Your task to perform on an android device: empty trash in the gmail app Image 0: 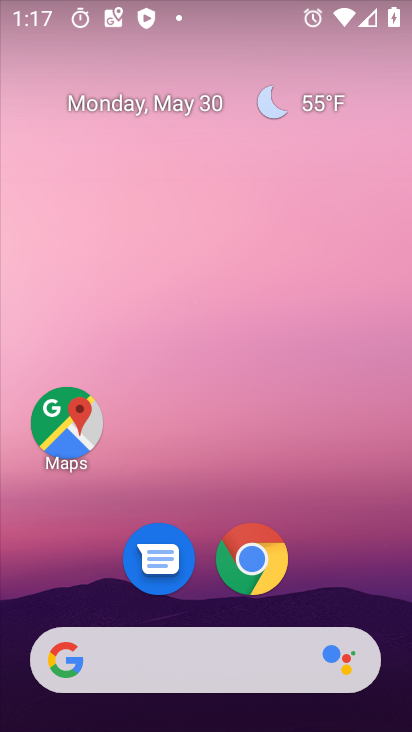
Step 0: drag from (122, 590) to (161, 111)
Your task to perform on an android device: empty trash in the gmail app Image 1: 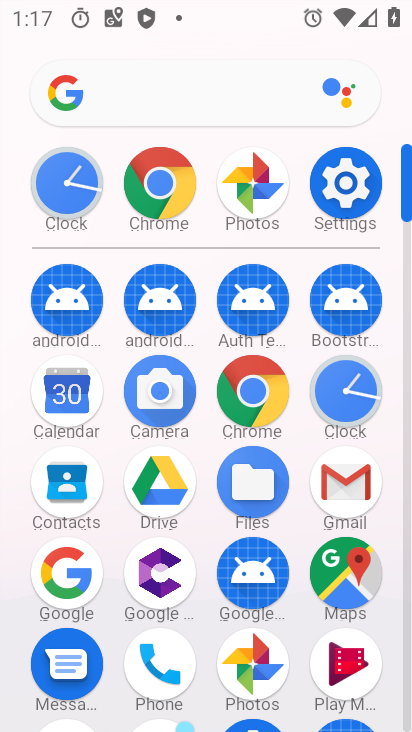
Step 1: click (342, 477)
Your task to perform on an android device: empty trash in the gmail app Image 2: 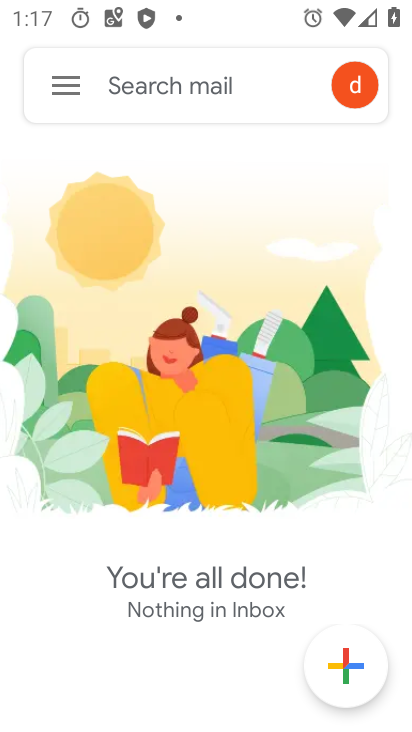
Step 2: click (64, 82)
Your task to perform on an android device: empty trash in the gmail app Image 3: 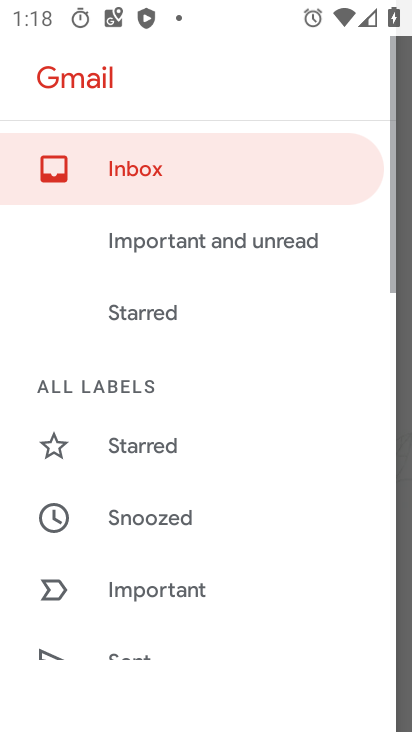
Step 3: drag from (149, 604) to (198, 148)
Your task to perform on an android device: empty trash in the gmail app Image 4: 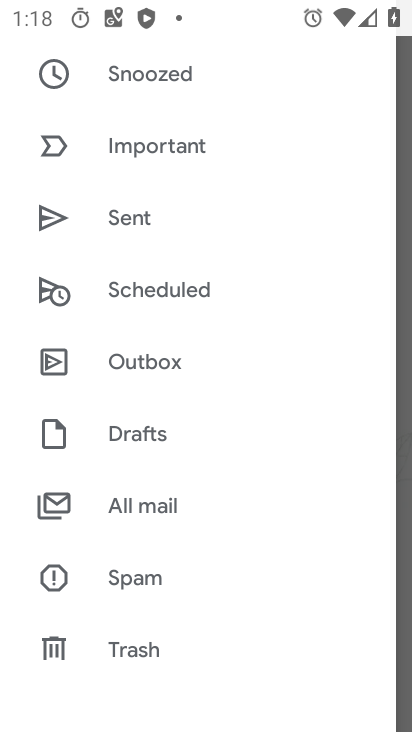
Step 4: click (139, 643)
Your task to perform on an android device: empty trash in the gmail app Image 5: 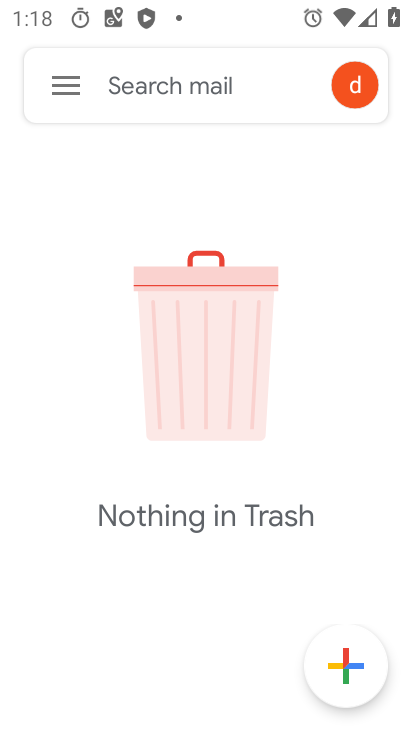
Step 5: task complete